Your task to perform on an android device: remove spam from my inbox in the gmail app Image 0: 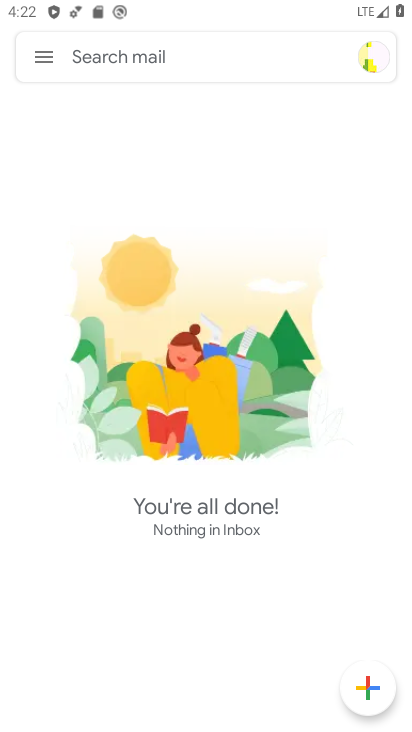
Step 0: click (37, 52)
Your task to perform on an android device: remove spam from my inbox in the gmail app Image 1: 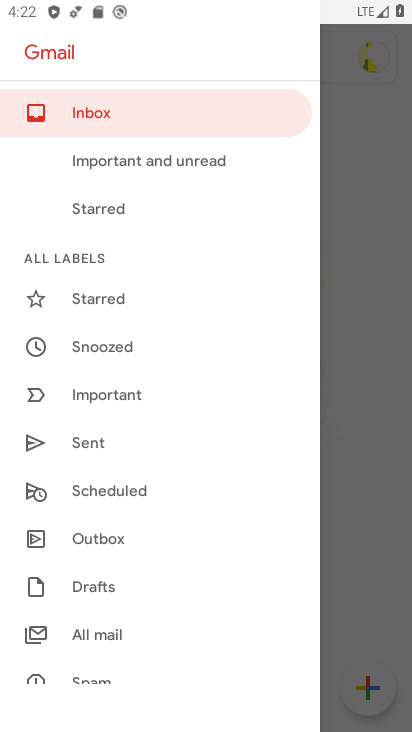
Step 1: drag from (111, 624) to (190, 305)
Your task to perform on an android device: remove spam from my inbox in the gmail app Image 2: 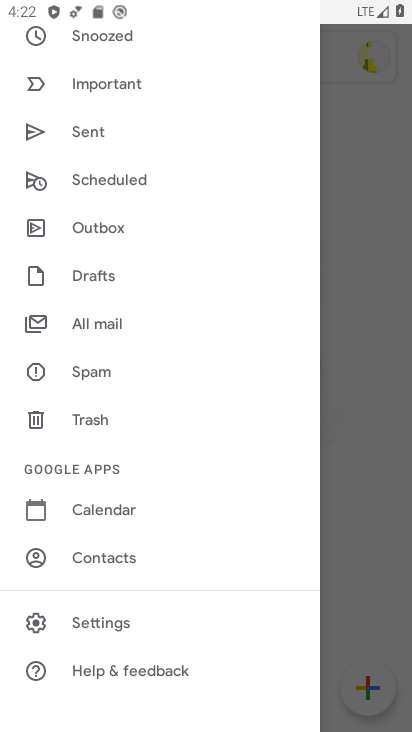
Step 2: click (112, 360)
Your task to perform on an android device: remove spam from my inbox in the gmail app Image 3: 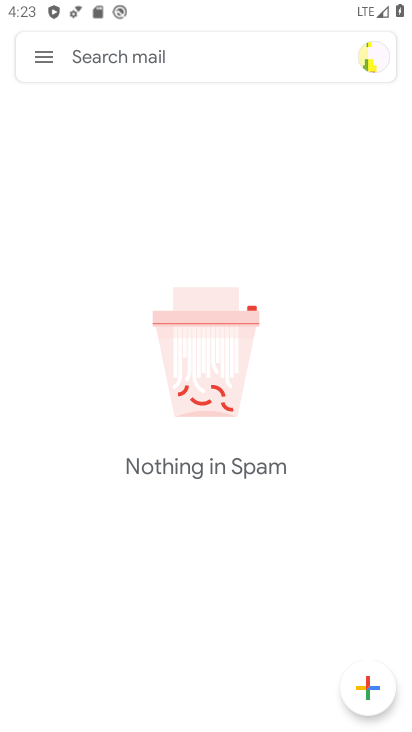
Step 3: task complete